Your task to perform on an android device: toggle sleep mode Image 0: 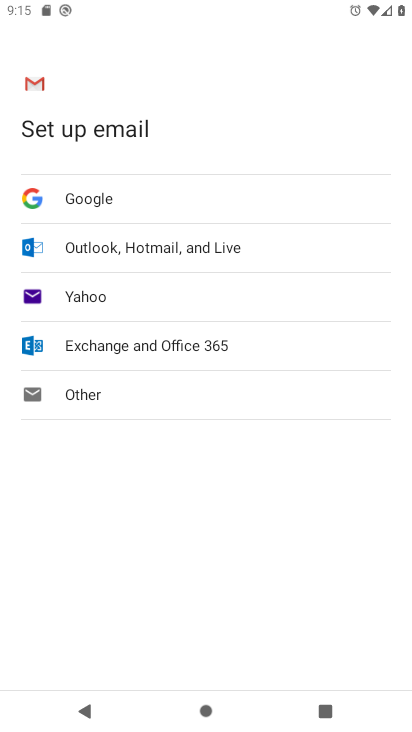
Step 0: press home button
Your task to perform on an android device: toggle sleep mode Image 1: 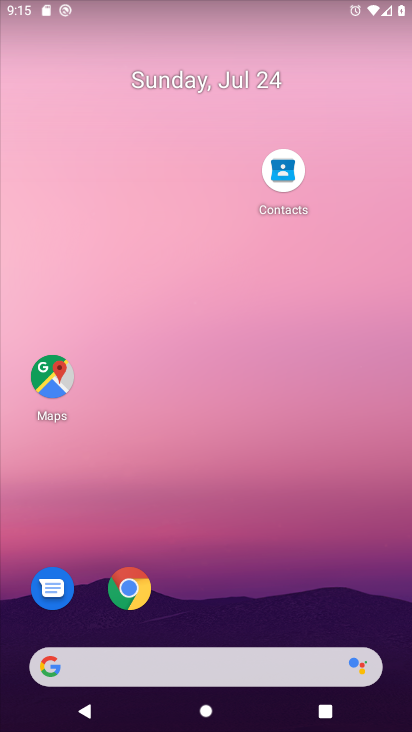
Step 1: drag from (212, 632) to (188, 2)
Your task to perform on an android device: toggle sleep mode Image 2: 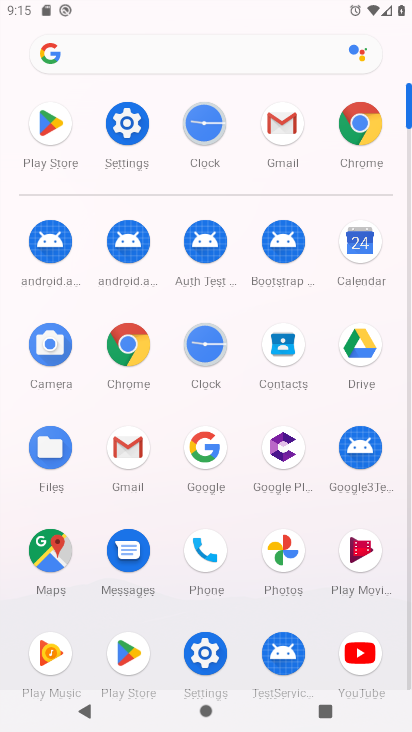
Step 2: click (123, 118)
Your task to perform on an android device: toggle sleep mode Image 3: 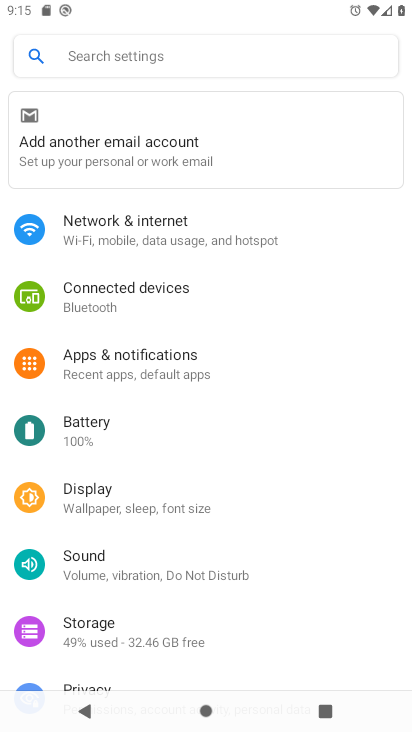
Step 3: click (124, 495)
Your task to perform on an android device: toggle sleep mode Image 4: 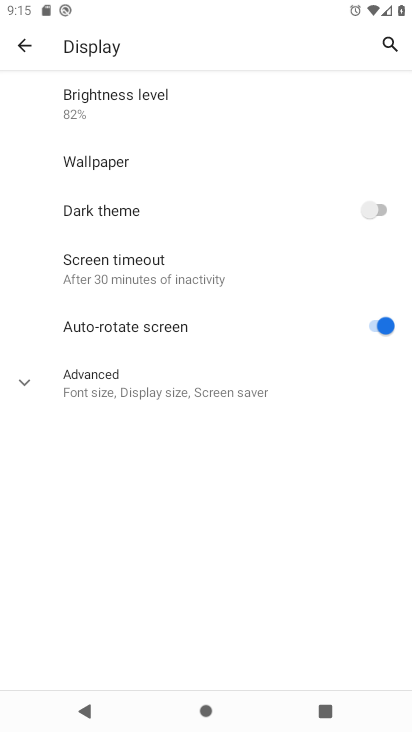
Step 4: click (24, 382)
Your task to perform on an android device: toggle sleep mode Image 5: 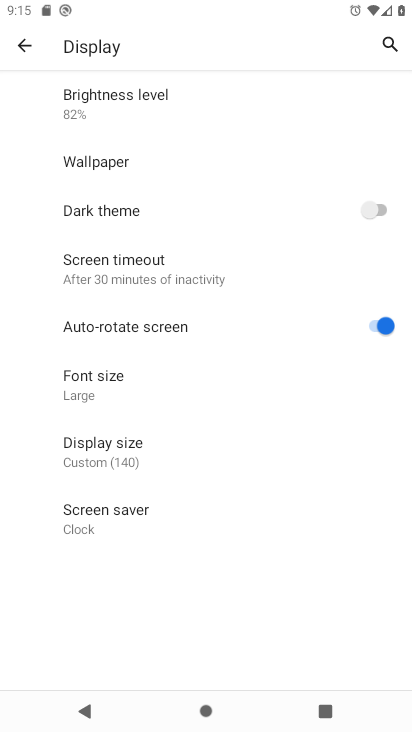
Step 5: task complete